Your task to perform on an android device: turn off notifications settings in the gmail app Image 0: 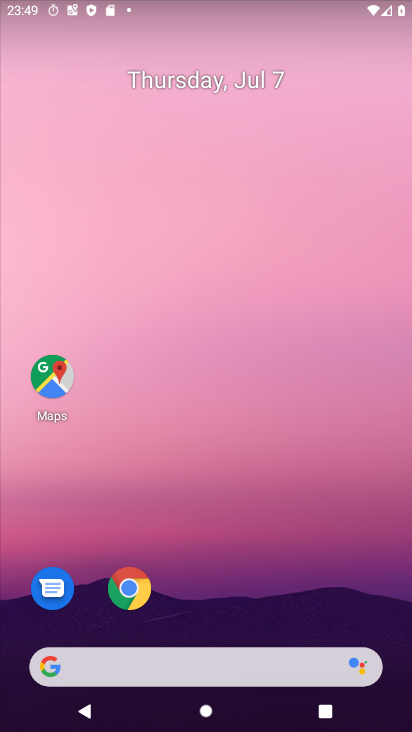
Step 0: drag from (232, 200) to (240, 88)
Your task to perform on an android device: turn off notifications settings in the gmail app Image 1: 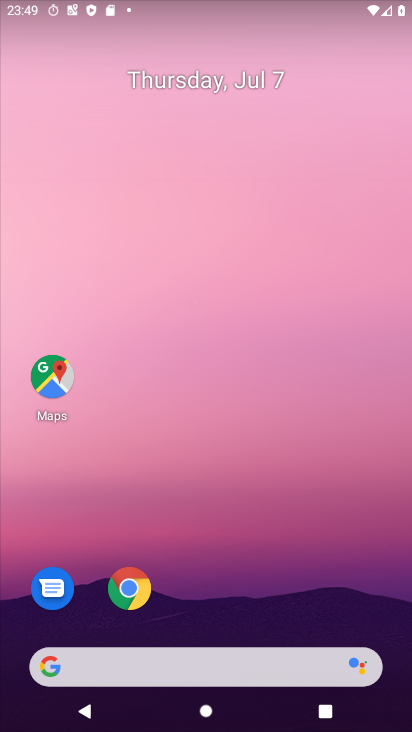
Step 1: click (220, 218)
Your task to perform on an android device: turn off notifications settings in the gmail app Image 2: 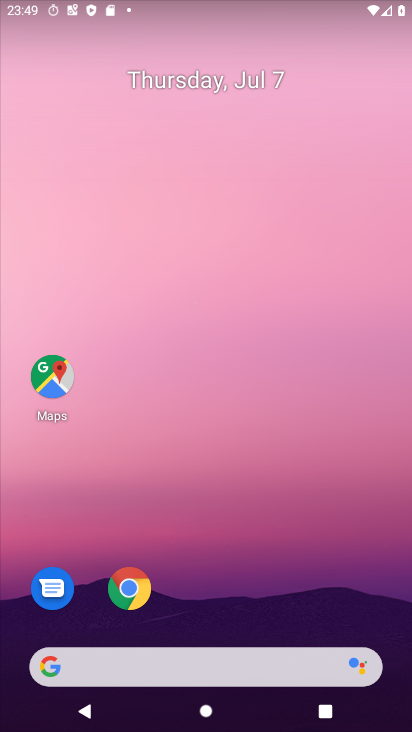
Step 2: drag from (184, 591) to (242, 7)
Your task to perform on an android device: turn off notifications settings in the gmail app Image 3: 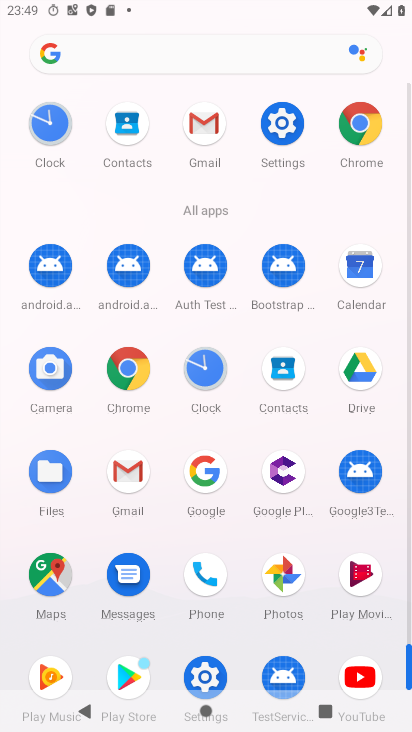
Step 3: click (206, 124)
Your task to perform on an android device: turn off notifications settings in the gmail app Image 4: 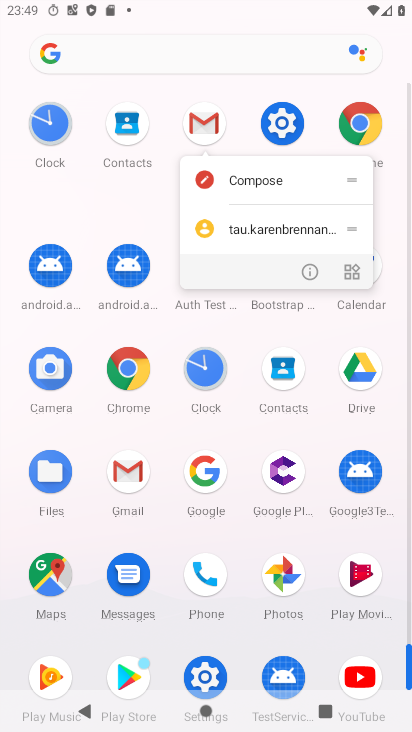
Step 4: click (303, 268)
Your task to perform on an android device: turn off notifications settings in the gmail app Image 5: 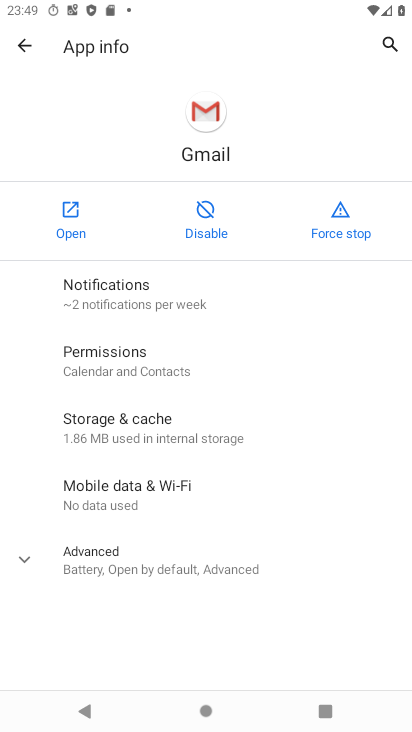
Step 5: click (78, 213)
Your task to perform on an android device: turn off notifications settings in the gmail app Image 6: 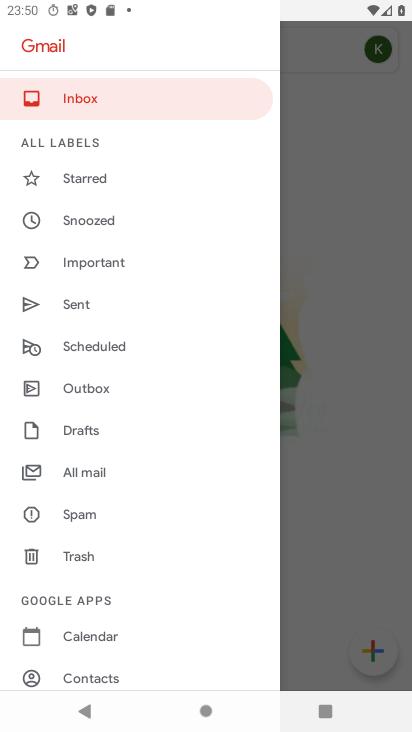
Step 6: drag from (149, 614) to (151, 5)
Your task to perform on an android device: turn off notifications settings in the gmail app Image 7: 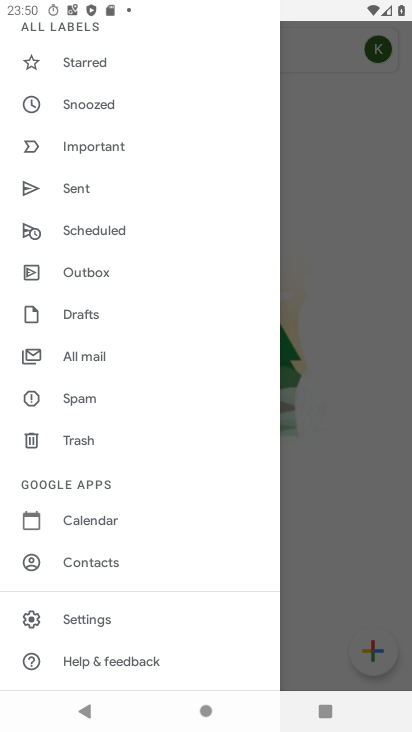
Step 7: click (80, 614)
Your task to perform on an android device: turn off notifications settings in the gmail app Image 8: 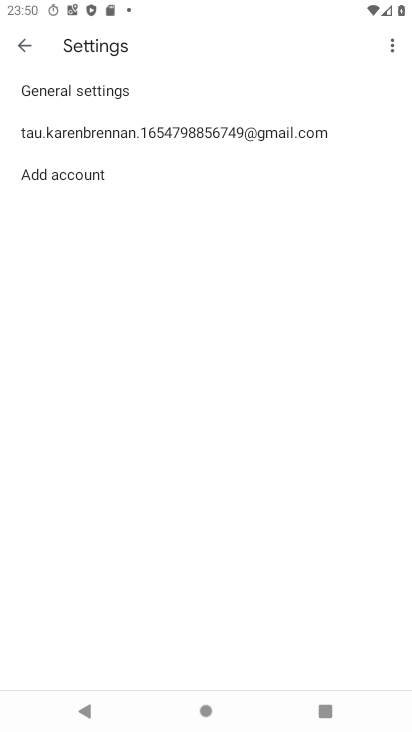
Step 8: click (128, 135)
Your task to perform on an android device: turn off notifications settings in the gmail app Image 9: 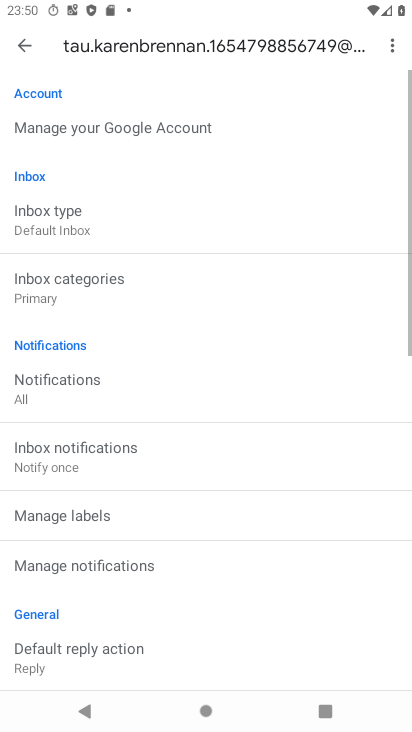
Step 9: drag from (199, 543) to (191, 253)
Your task to perform on an android device: turn off notifications settings in the gmail app Image 10: 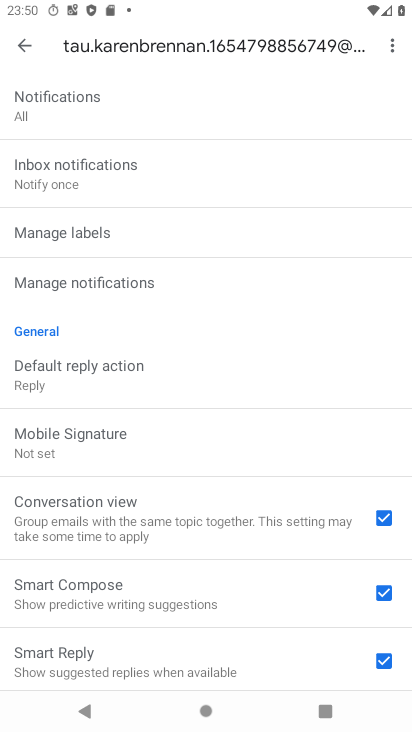
Step 10: drag from (130, 155) to (313, 731)
Your task to perform on an android device: turn off notifications settings in the gmail app Image 11: 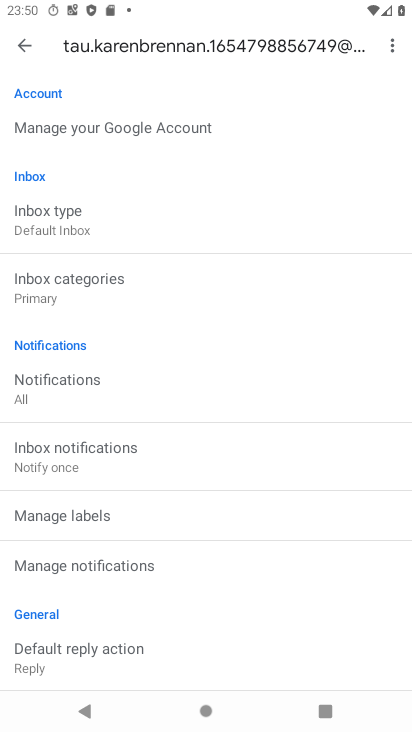
Step 11: drag from (216, 208) to (227, 643)
Your task to perform on an android device: turn off notifications settings in the gmail app Image 12: 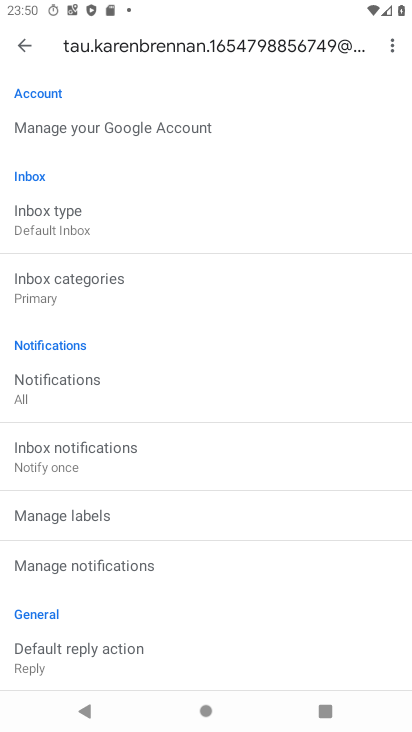
Step 12: click (110, 566)
Your task to perform on an android device: turn off notifications settings in the gmail app Image 13: 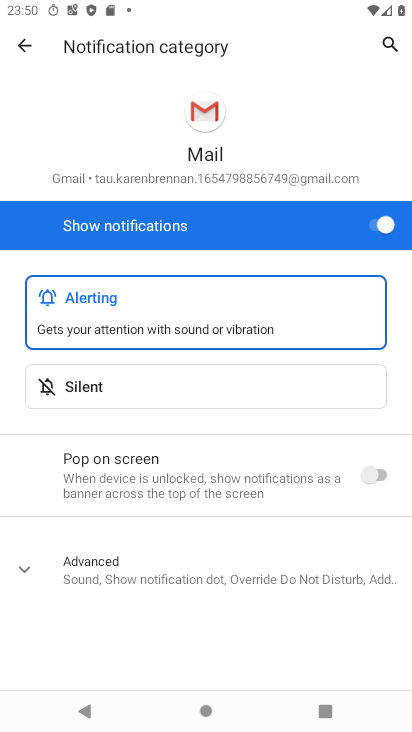
Step 13: click (371, 230)
Your task to perform on an android device: turn off notifications settings in the gmail app Image 14: 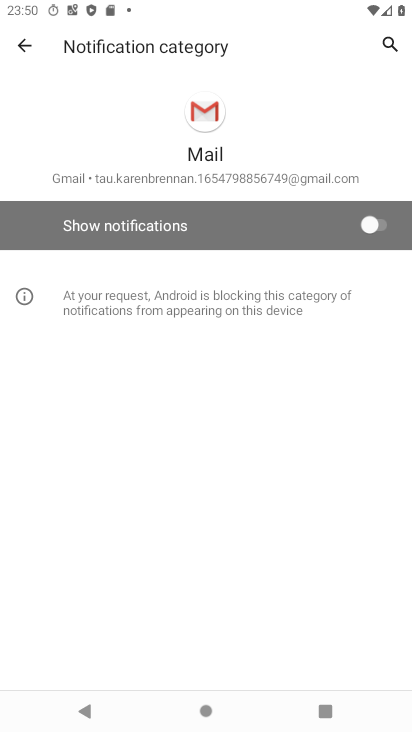
Step 14: task complete